Your task to perform on an android device: turn on airplane mode Image 0: 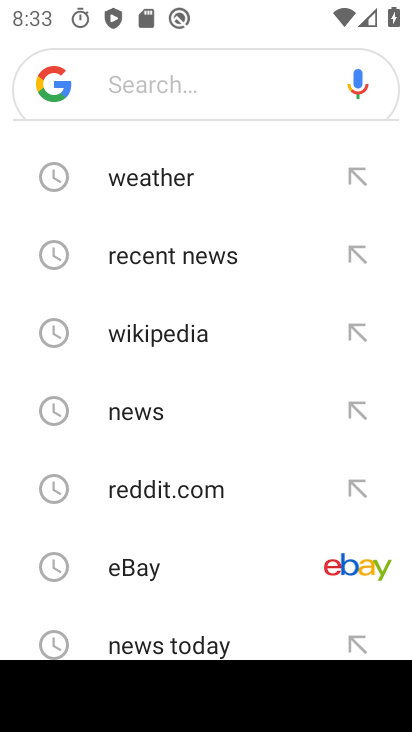
Step 0: press home button
Your task to perform on an android device: turn on airplane mode Image 1: 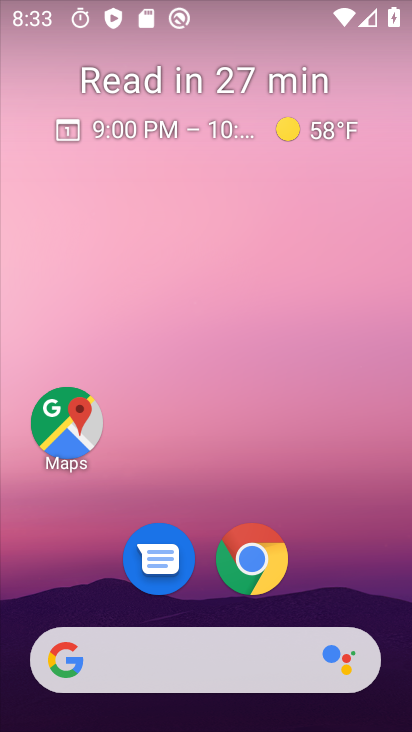
Step 1: drag from (361, 587) to (308, 257)
Your task to perform on an android device: turn on airplane mode Image 2: 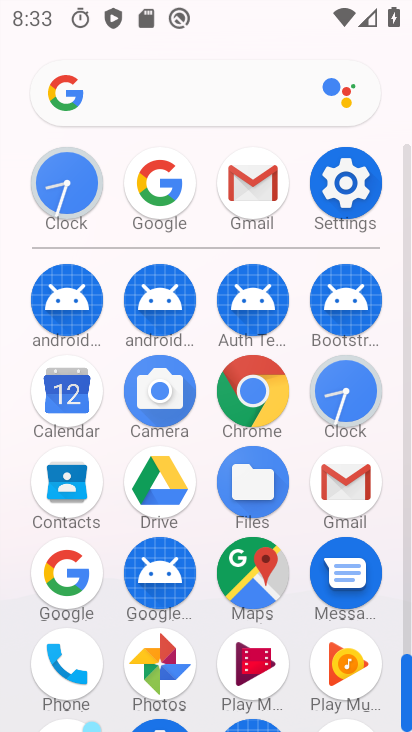
Step 2: click (329, 182)
Your task to perform on an android device: turn on airplane mode Image 3: 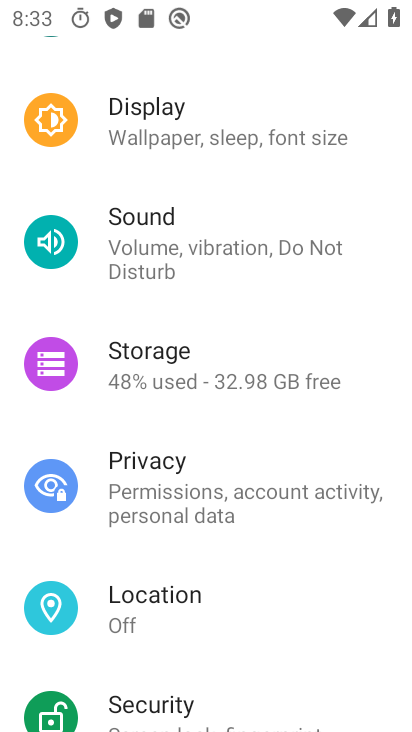
Step 3: drag from (239, 170) to (285, 473)
Your task to perform on an android device: turn on airplane mode Image 4: 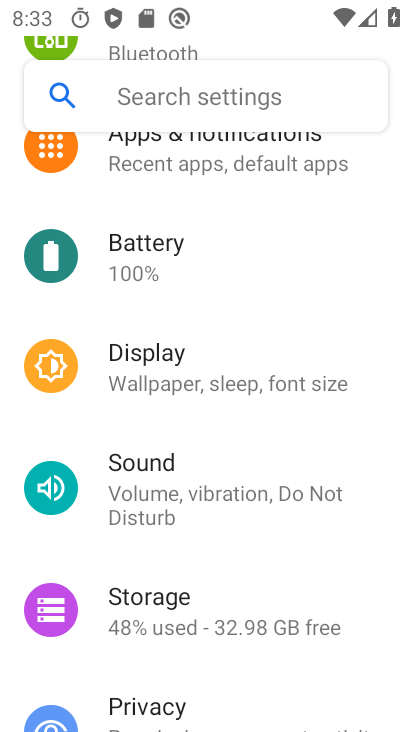
Step 4: drag from (189, 201) to (226, 448)
Your task to perform on an android device: turn on airplane mode Image 5: 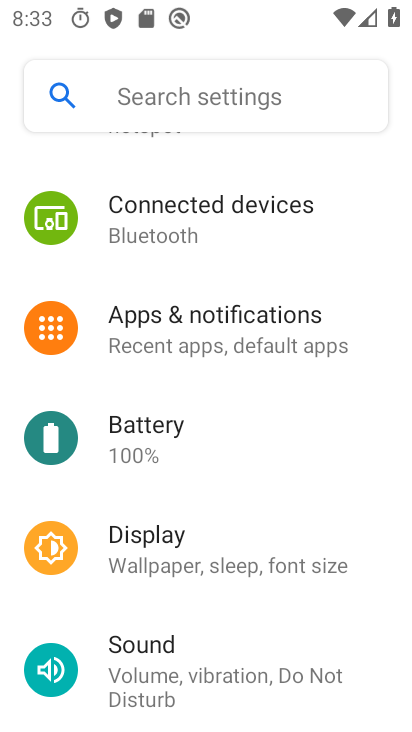
Step 5: drag from (180, 169) to (209, 469)
Your task to perform on an android device: turn on airplane mode Image 6: 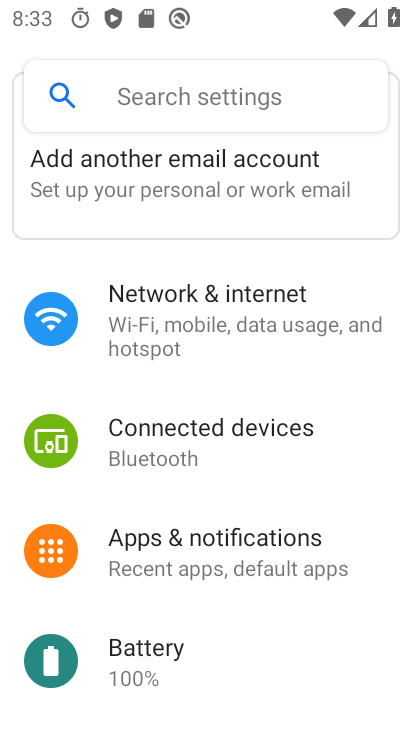
Step 6: click (181, 295)
Your task to perform on an android device: turn on airplane mode Image 7: 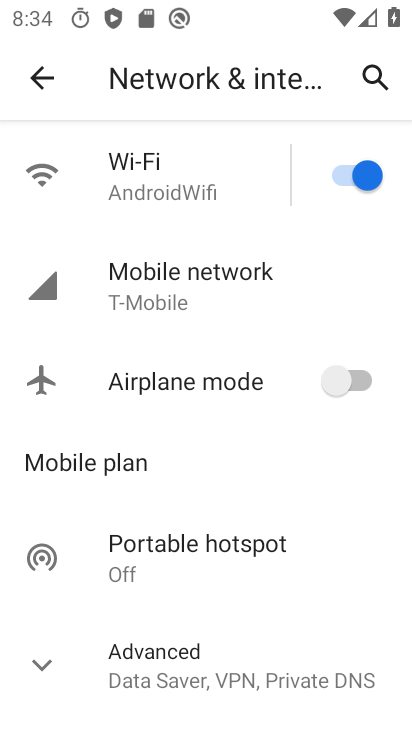
Step 7: click (361, 377)
Your task to perform on an android device: turn on airplane mode Image 8: 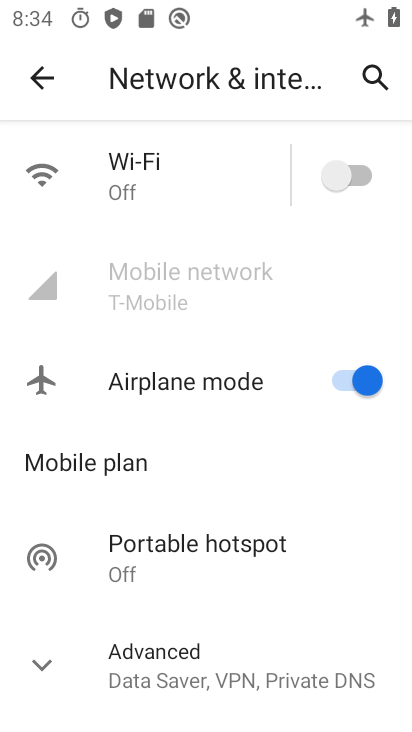
Step 8: task complete